Your task to perform on an android device: add a contact in the contacts app Image 0: 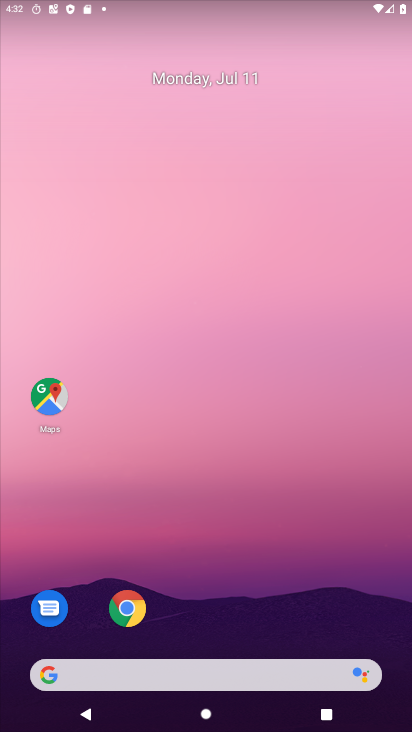
Step 0: drag from (245, 684) to (126, 4)
Your task to perform on an android device: add a contact in the contacts app Image 1: 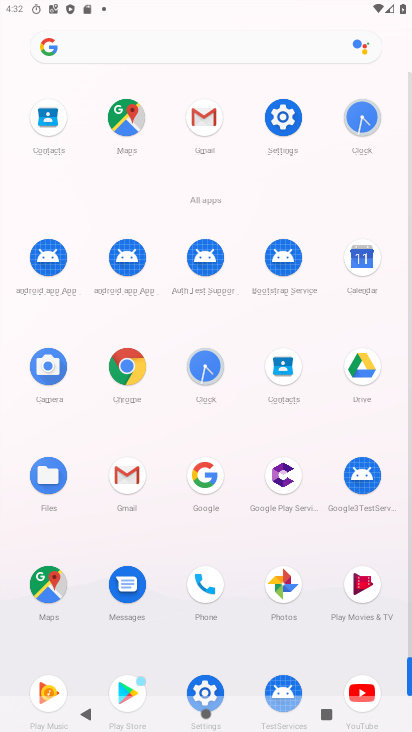
Step 1: click (284, 366)
Your task to perform on an android device: add a contact in the contacts app Image 2: 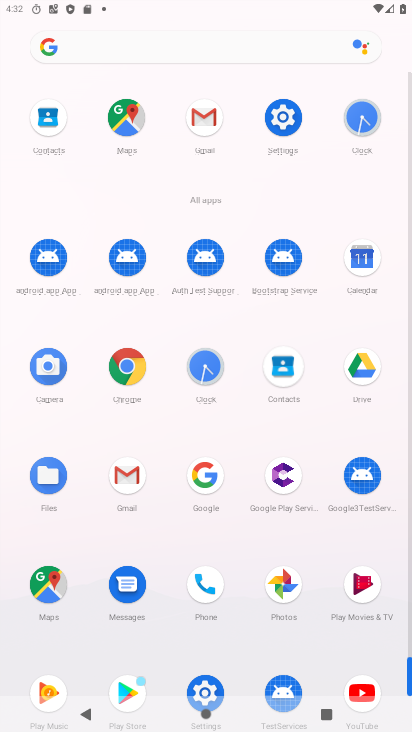
Step 2: click (284, 366)
Your task to perform on an android device: add a contact in the contacts app Image 3: 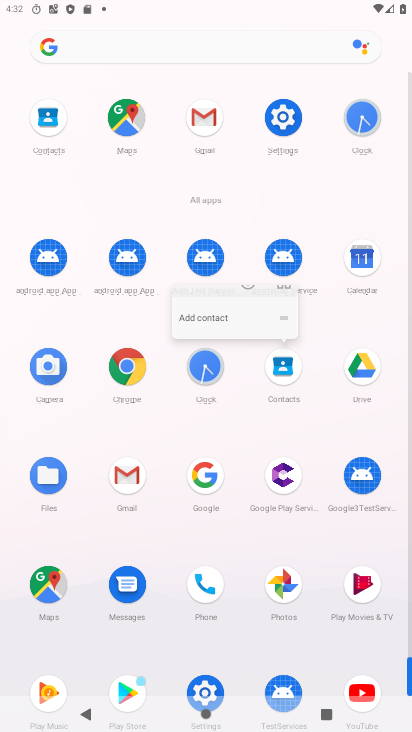
Step 3: click (284, 366)
Your task to perform on an android device: add a contact in the contacts app Image 4: 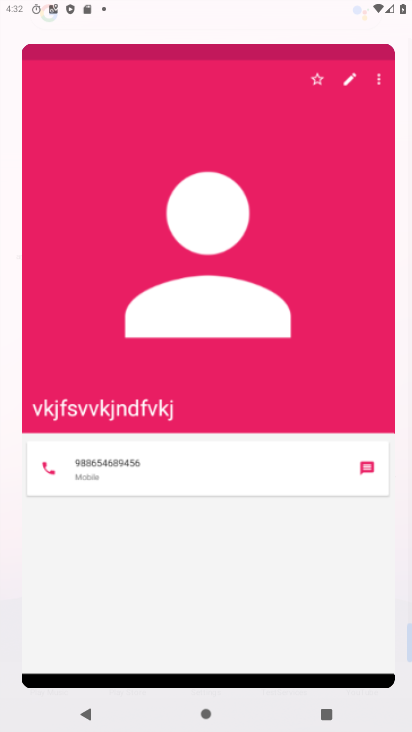
Step 4: click (285, 365)
Your task to perform on an android device: add a contact in the contacts app Image 5: 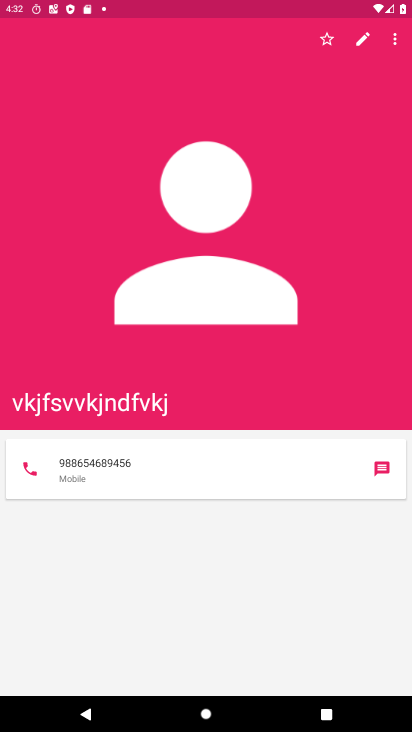
Step 5: click (290, 362)
Your task to perform on an android device: add a contact in the contacts app Image 6: 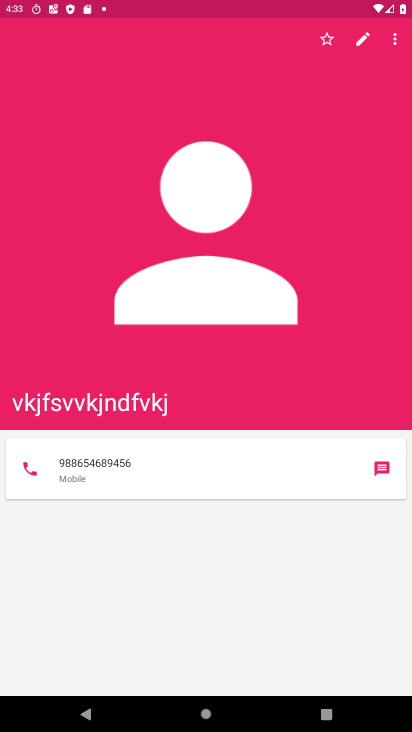
Step 6: click (355, 40)
Your task to perform on an android device: add a contact in the contacts app Image 7: 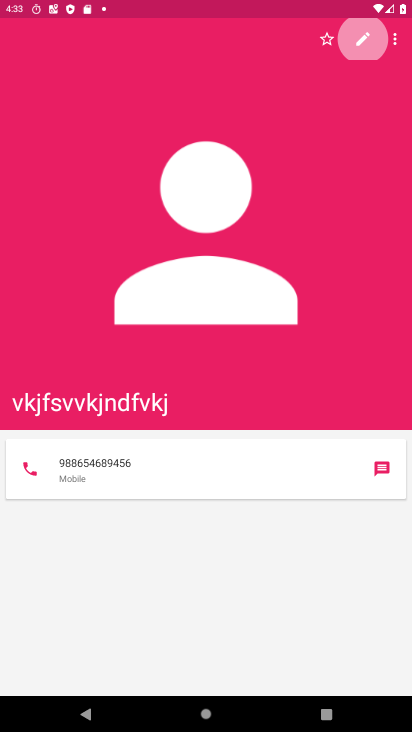
Step 7: click (355, 40)
Your task to perform on an android device: add a contact in the contacts app Image 8: 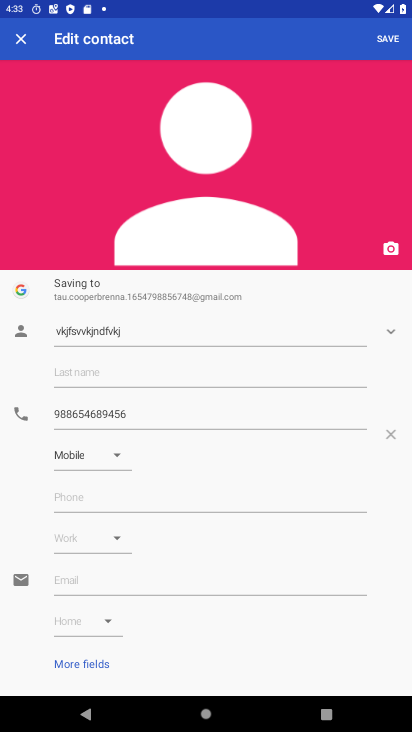
Step 8: click (385, 43)
Your task to perform on an android device: add a contact in the contacts app Image 9: 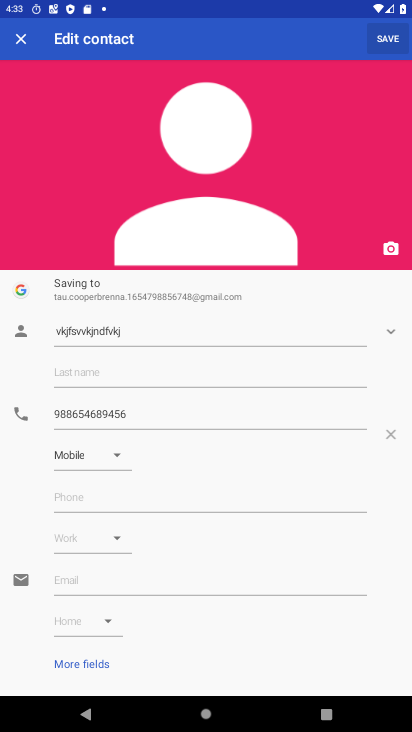
Step 9: click (385, 43)
Your task to perform on an android device: add a contact in the contacts app Image 10: 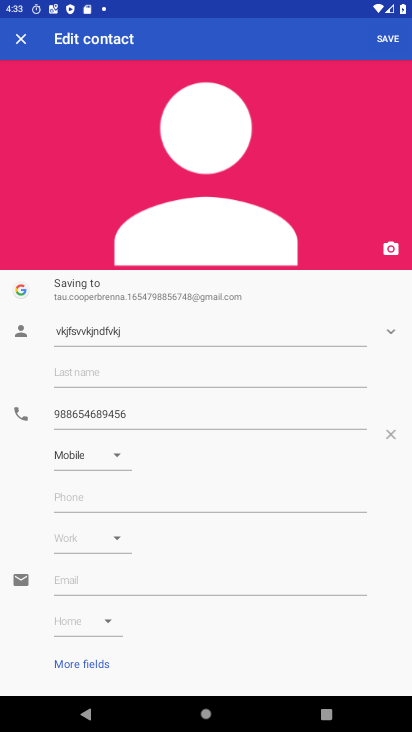
Step 10: click (385, 43)
Your task to perform on an android device: add a contact in the contacts app Image 11: 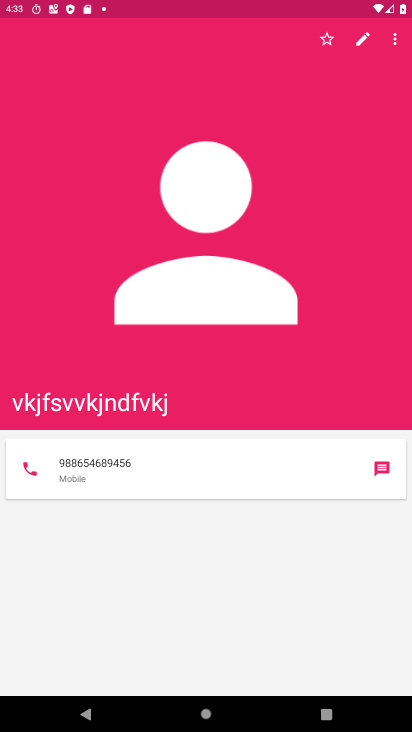
Step 11: task complete